Your task to perform on an android device: check out phone information Image 0: 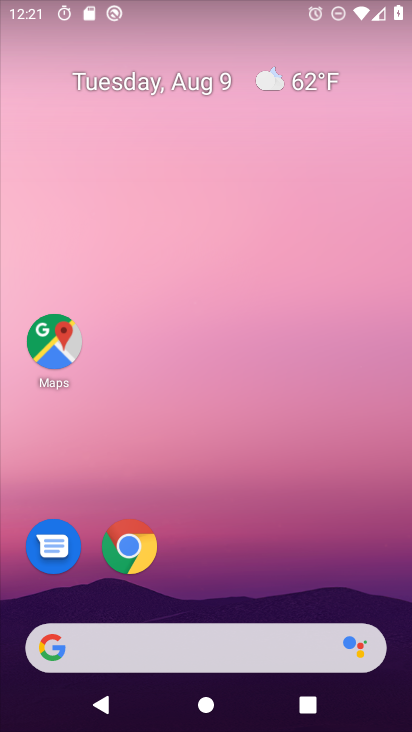
Step 0: press home button
Your task to perform on an android device: check out phone information Image 1: 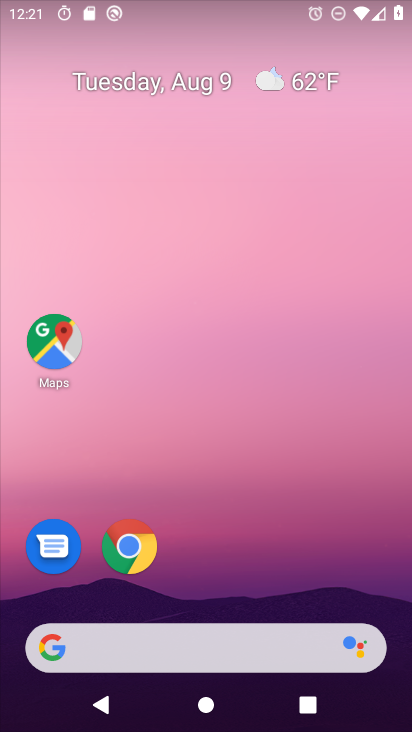
Step 1: drag from (223, 599) to (266, 26)
Your task to perform on an android device: check out phone information Image 2: 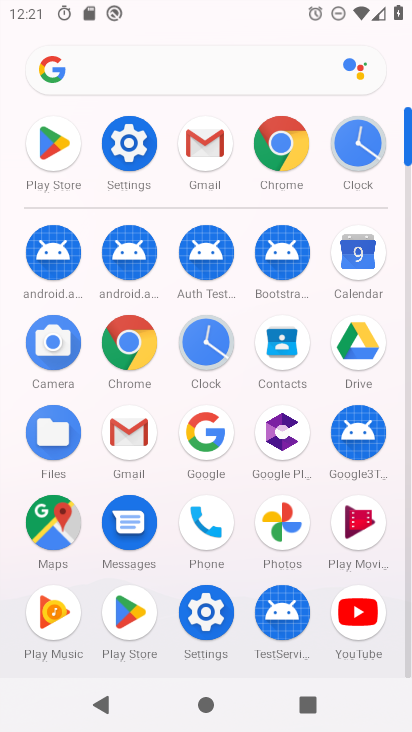
Step 2: click (128, 140)
Your task to perform on an android device: check out phone information Image 3: 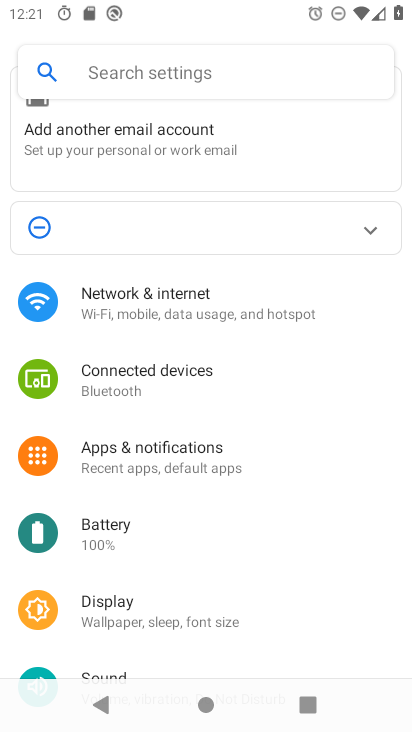
Step 3: drag from (202, 649) to (215, 178)
Your task to perform on an android device: check out phone information Image 4: 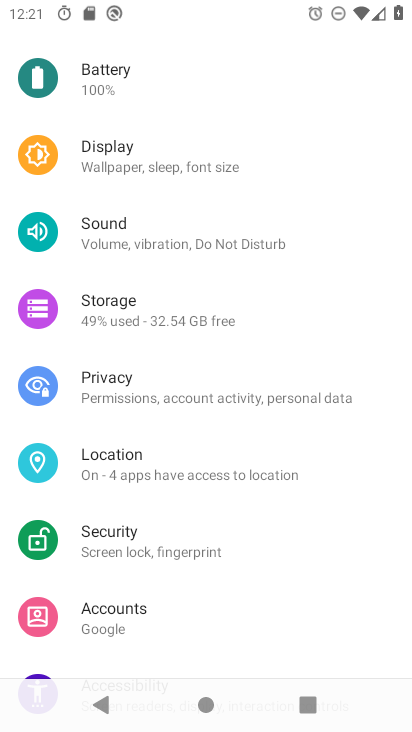
Step 4: drag from (182, 640) to (216, 81)
Your task to perform on an android device: check out phone information Image 5: 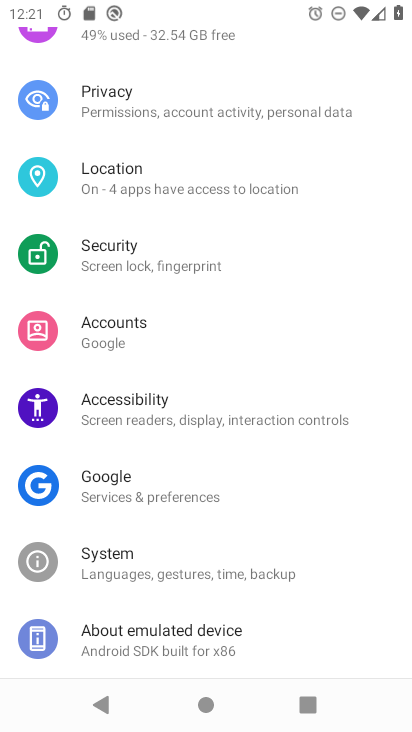
Step 5: click (246, 643)
Your task to perform on an android device: check out phone information Image 6: 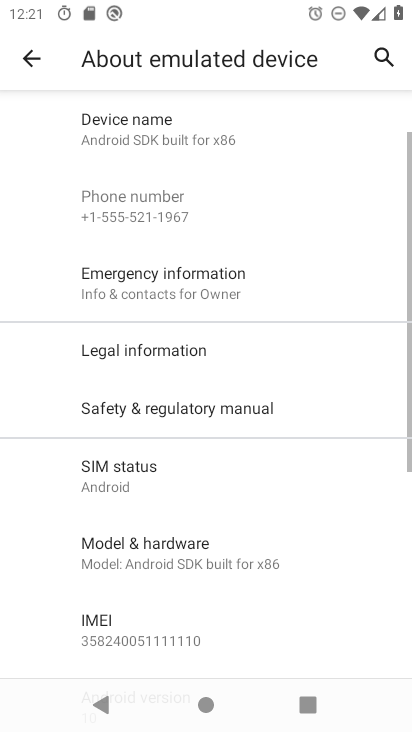
Step 6: task complete